Your task to perform on an android device: read, delete, or share a saved page in the chrome app Image 0: 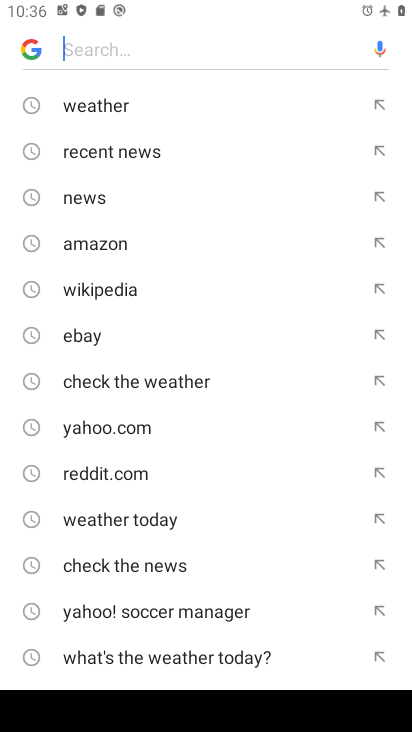
Step 0: press home button
Your task to perform on an android device: read, delete, or share a saved page in the chrome app Image 1: 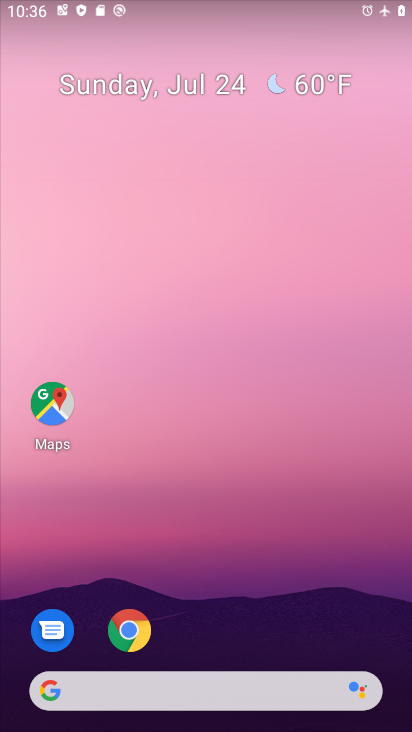
Step 1: click (128, 628)
Your task to perform on an android device: read, delete, or share a saved page in the chrome app Image 2: 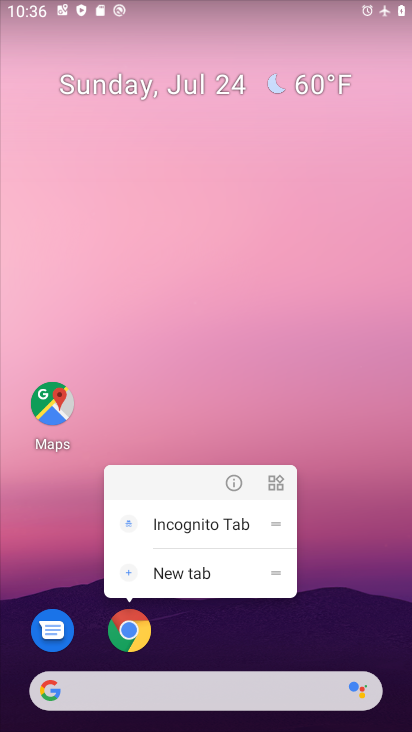
Step 2: click (150, 623)
Your task to perform on an android device: read, delete, or share a saved page in the chrome app Image 3: 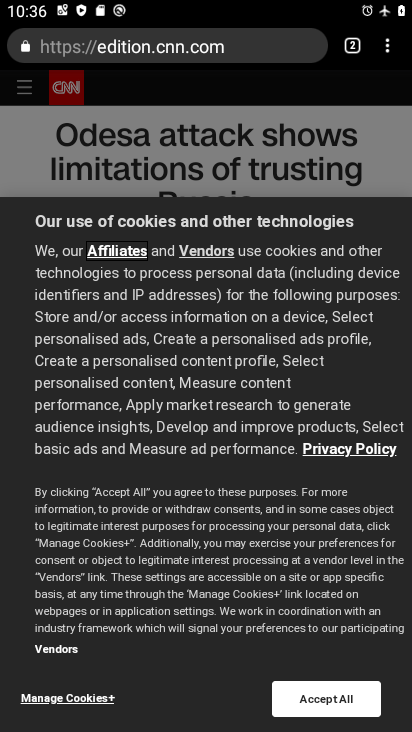
Step 3: click (388, 47)
Your task to perform on an android device: read, delete, or share a saved page in the chrome app Image 4: 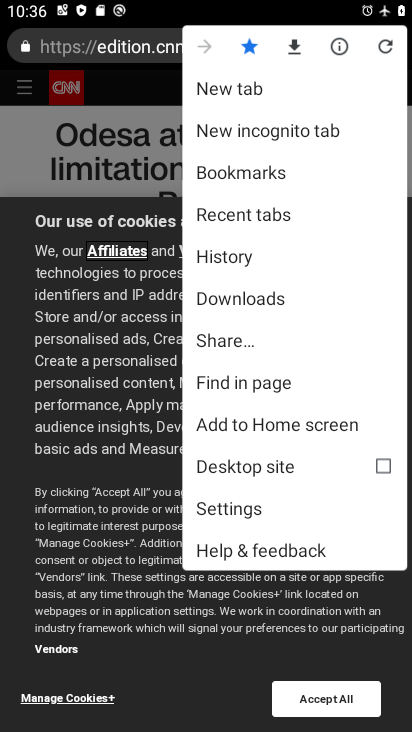
Step 4: click (245, 297)
Your task to perform on an android device: read, delete, or share a saved page in the chrome app Image 5: 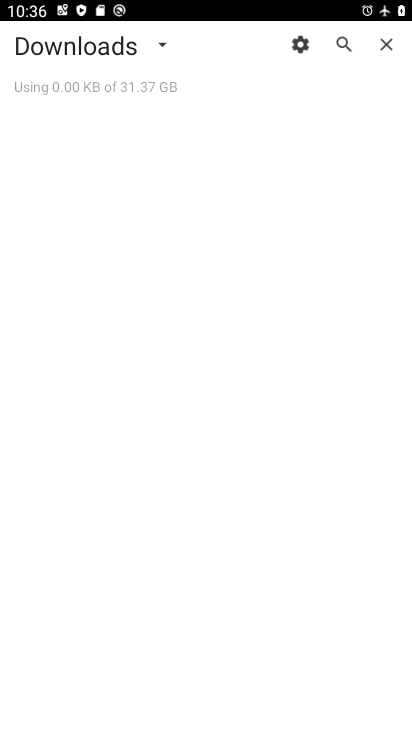
Step 5: task complete